Your task to perform on an android device: create a new album in the google photos Image 0: 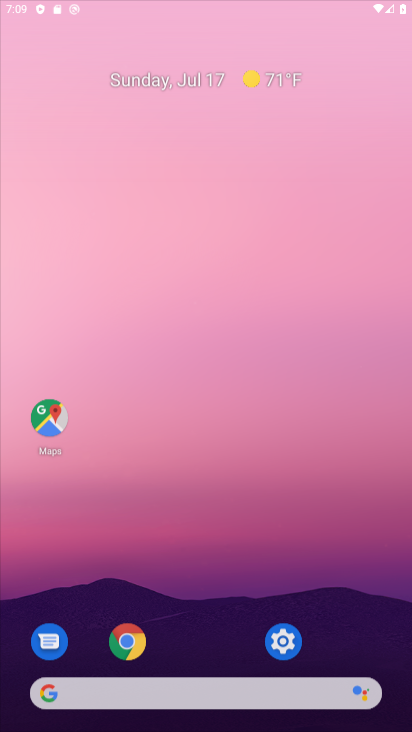
Step 0: press home button
Your task to perform on an android device: create a new album in the google photos Image 1: 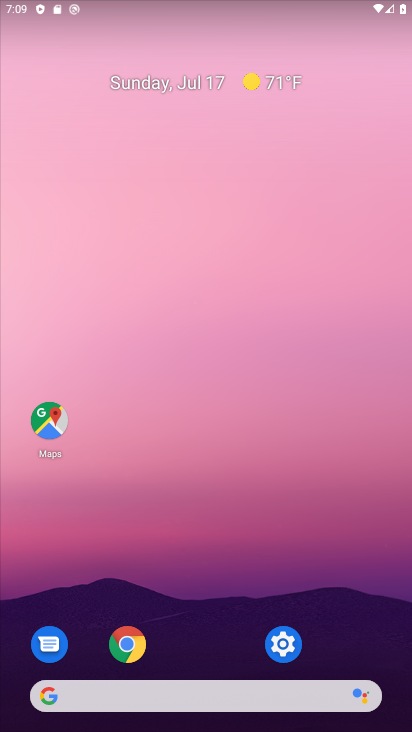
Step 1: drag from (217, 658) to (188, 254)
Your task to perform on an android device: create a new album in the google photos Image 2: 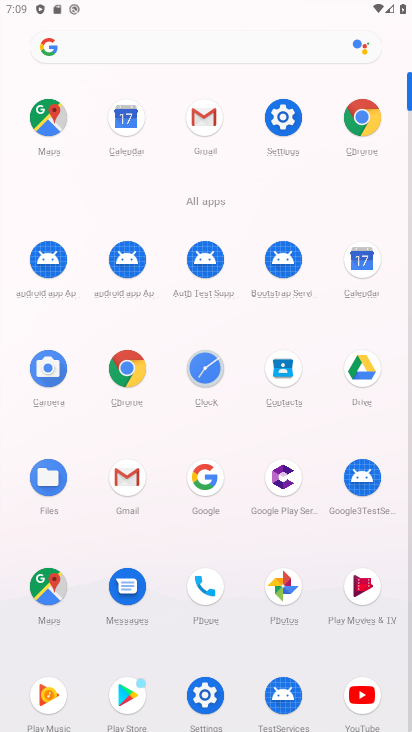
Step 2: click (284, 579)
Your task to perform on an android device: create a new album in the google photos Image 3: 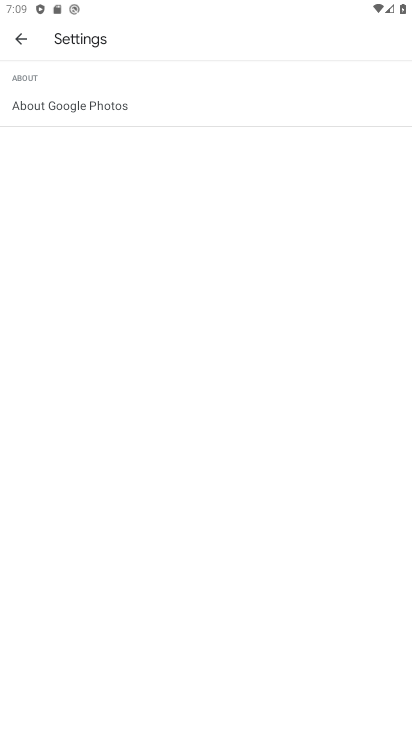
Step 3: click (19, 34)
Your task to perform on an android device: create a new album in the google photos Image 4: 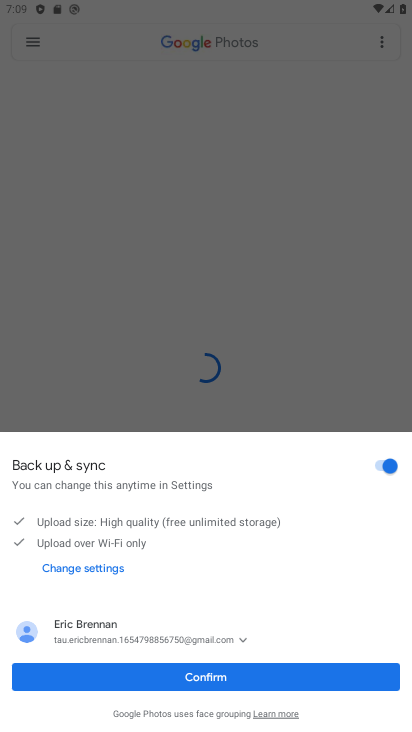
Step 4: click (181, 683)
Your task to perform on an android device: create a new album in the google photos Image 5: 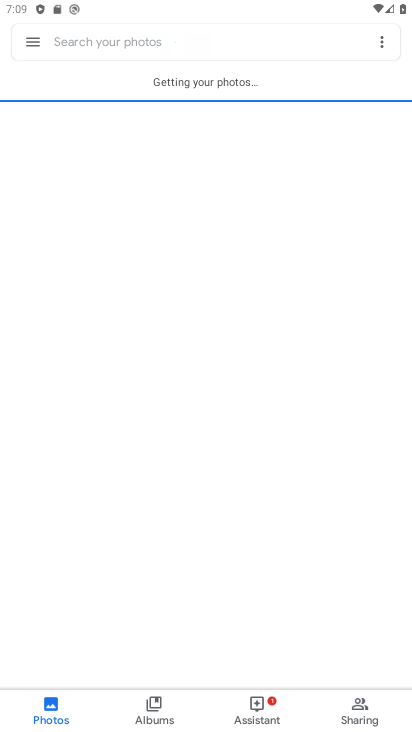
Step 5: click (146, 701)
Your task to perform on an android device: create a new album in the google photos Image 6: 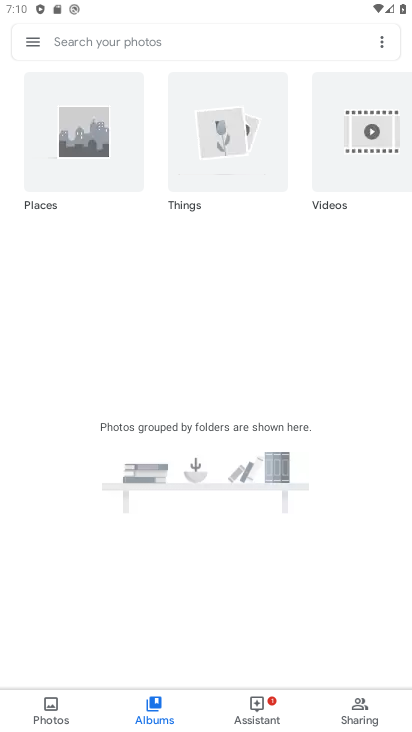
Step 6: task complete